Your task to perform on an android device: change keyboard looks Image 0: 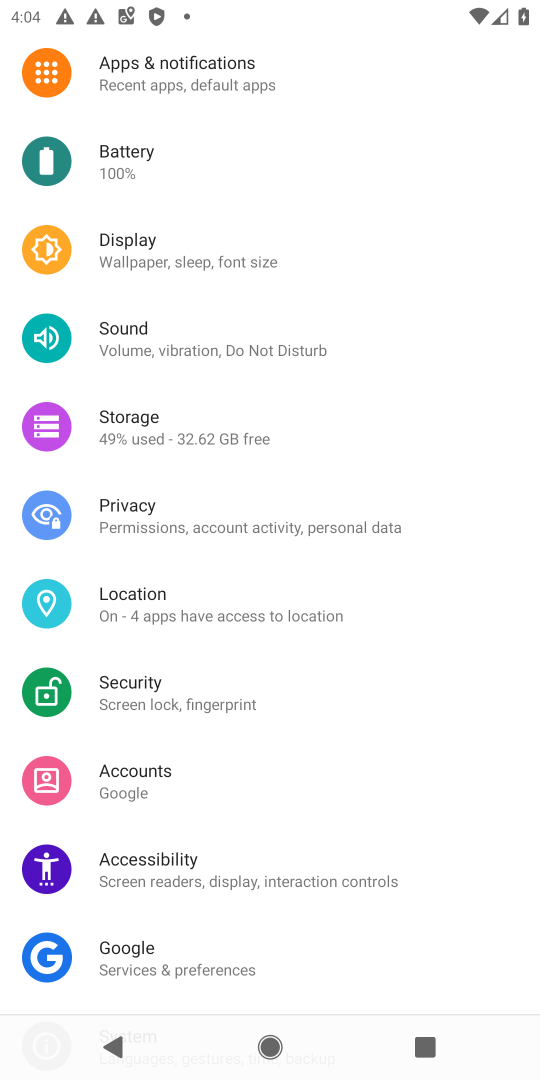
Step 0: drag from (405, 823) to (459, 219)
Your task to perform on an android device: change keyboard looks Image 1: 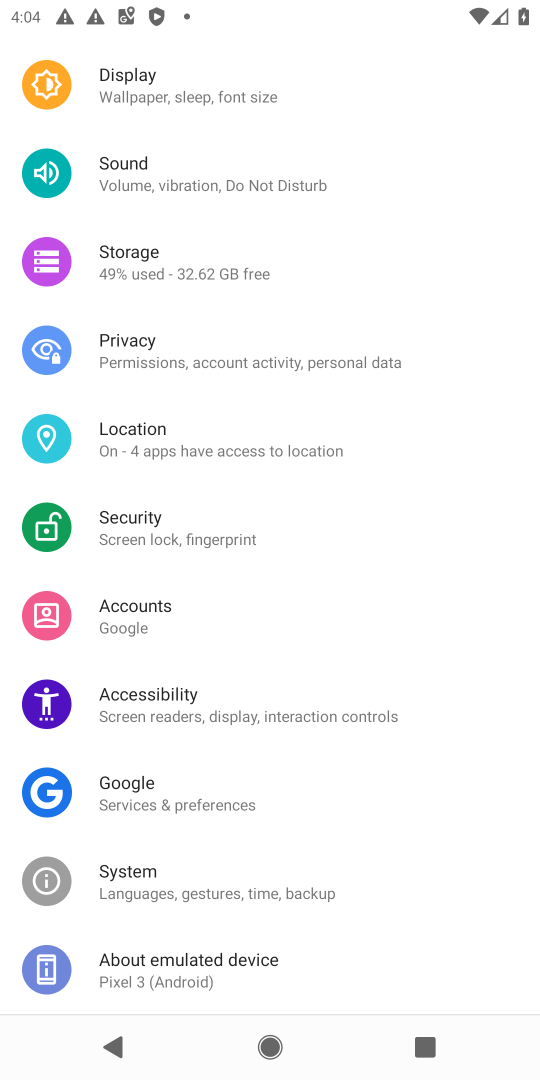
Step 1: click (265, 885)
Your task to perform on an android device: change keyboard looks Image 2: 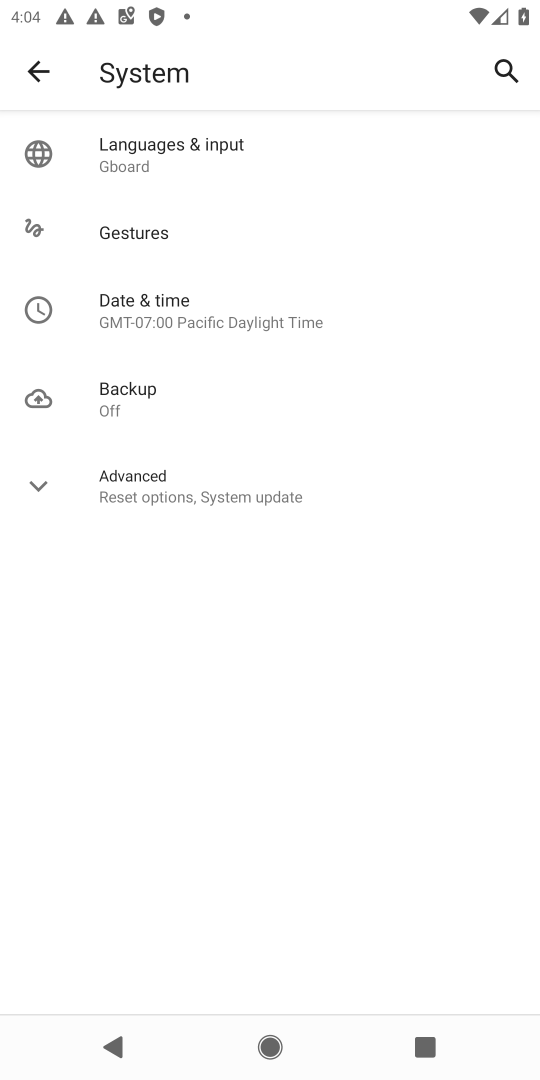
Step 2: click (239, 139)
Your task to perform on an android device: change keyboard looks Image 3: 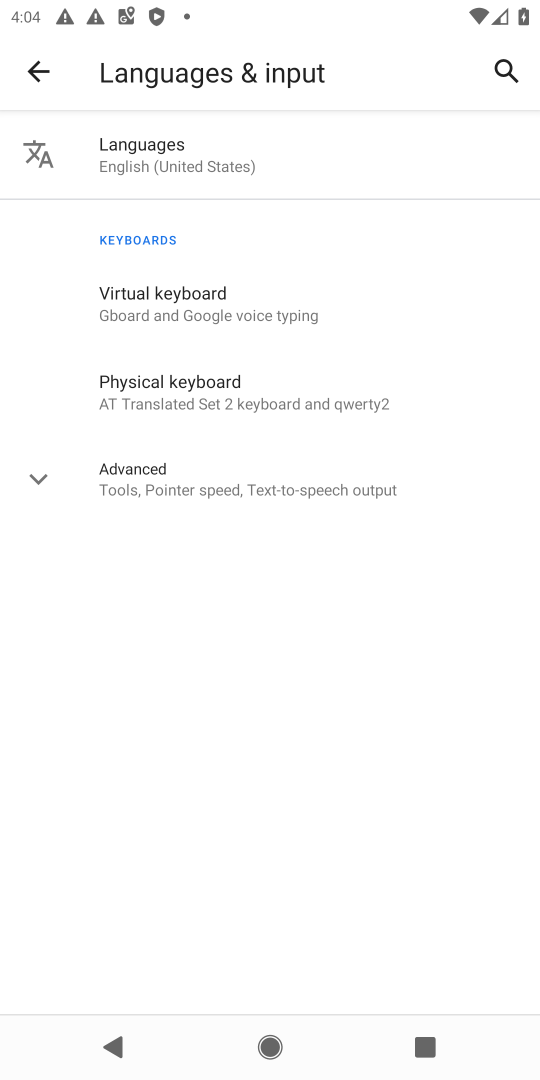
Step 3: click (216, 300)
Your task to perform on an android device: change keyboard looks Image 4: 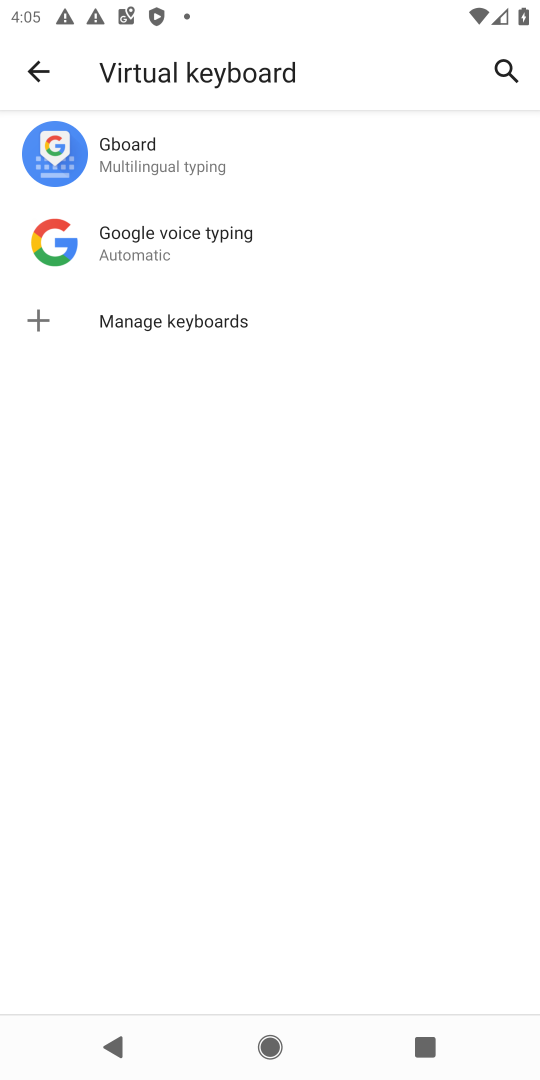
Step 4: click (163, 160)
Your task to perform on an android device: change keyboard looks Image 5: 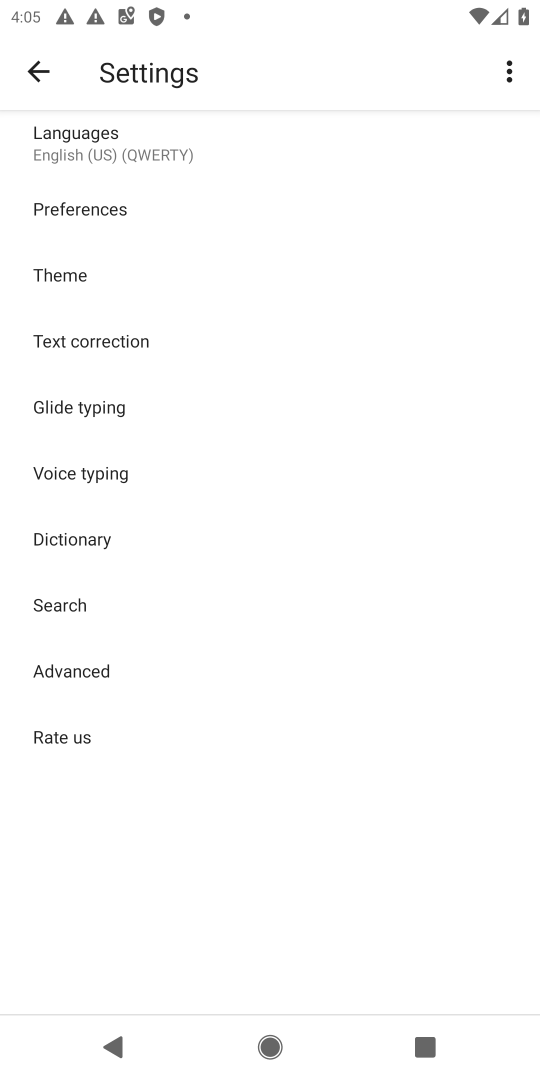
Step 5: click (110, 275)
Your task to perform on an android device: change keyboard looks Image 6: 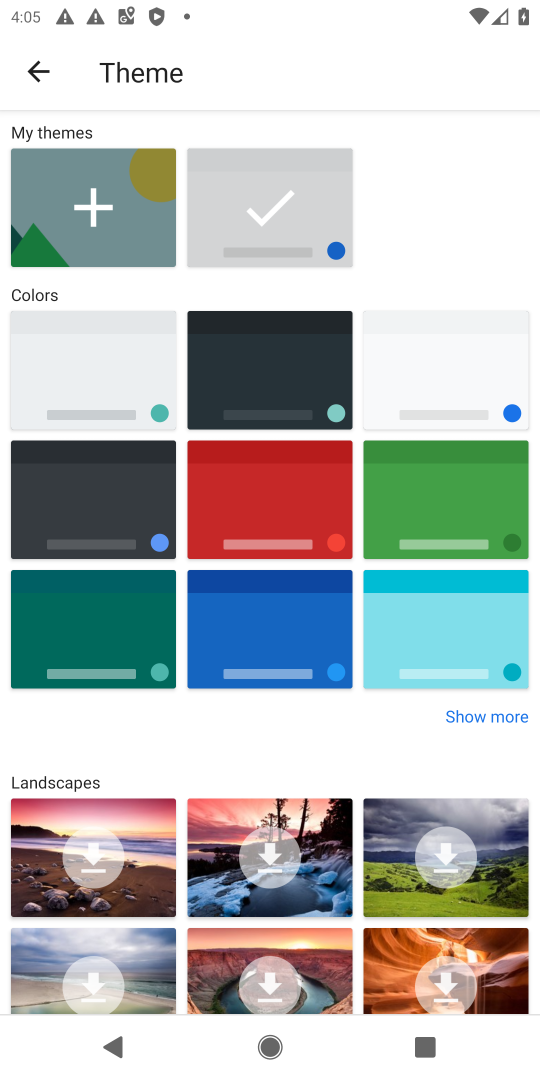
Step 6: click (111, 381)
Your task to perform on an android device: change keyboard looks Image 7: 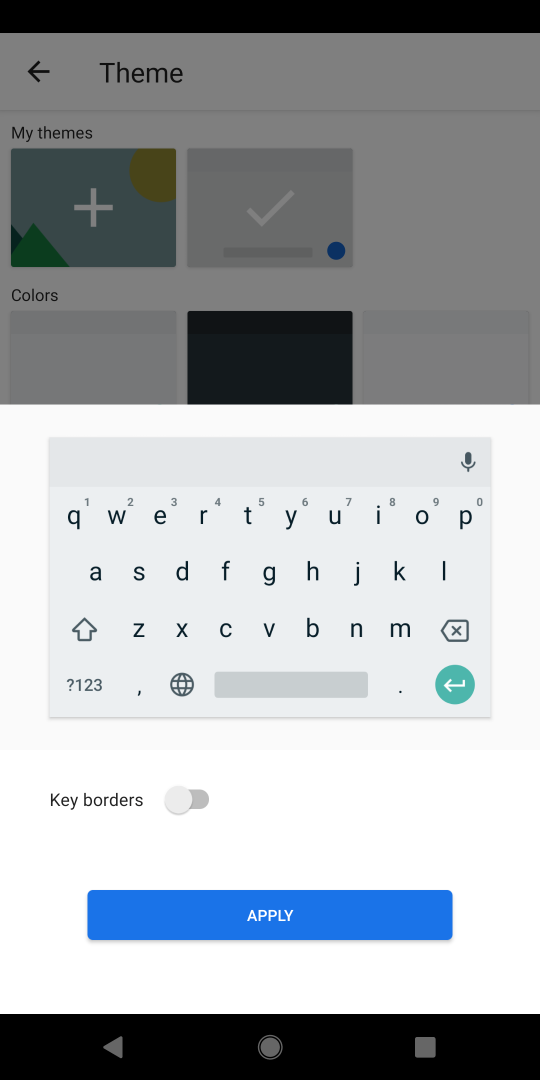
Step 7: click (387, 915)
Your task to perform on an android device: change keyboard looks Image 8: 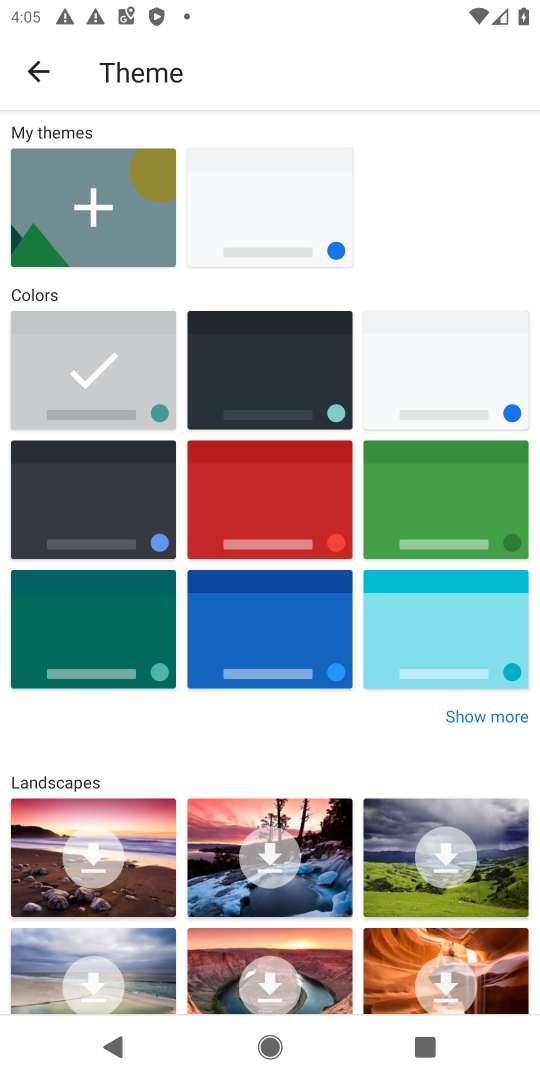
Step 8: task complete